Your task to perform on an android device: turn on showing notifications on the lock screen Image 0: 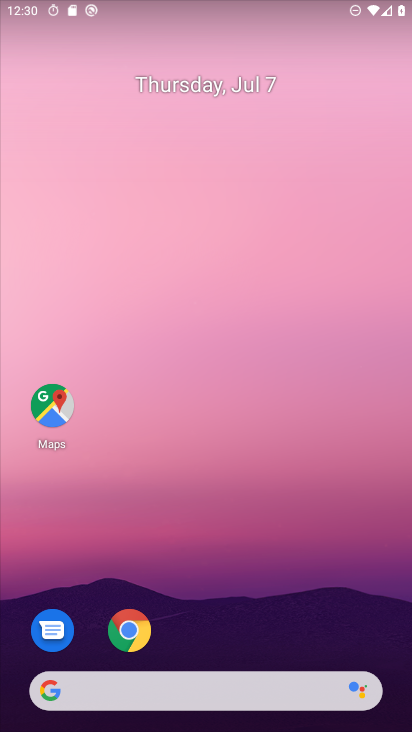
Step 0: drag from (218, 618) to (215, 199)
Your task to perform on an android device: turn on showing notifications on the lock screen Image 1: 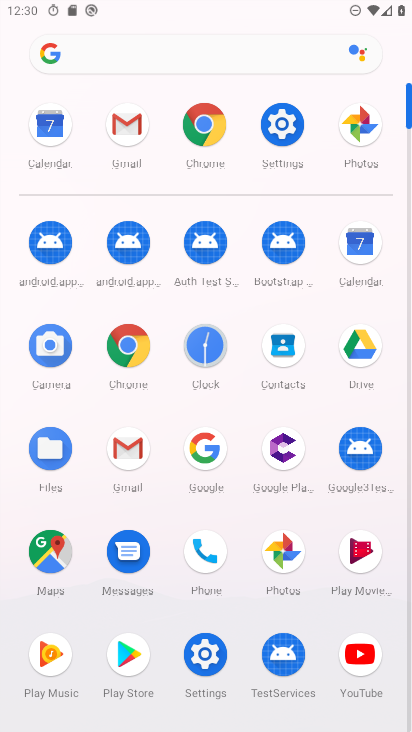
Step 1: click (216, 665)
Your task to perform on an android device: turn on showing notifications on the lock screen Image 2: 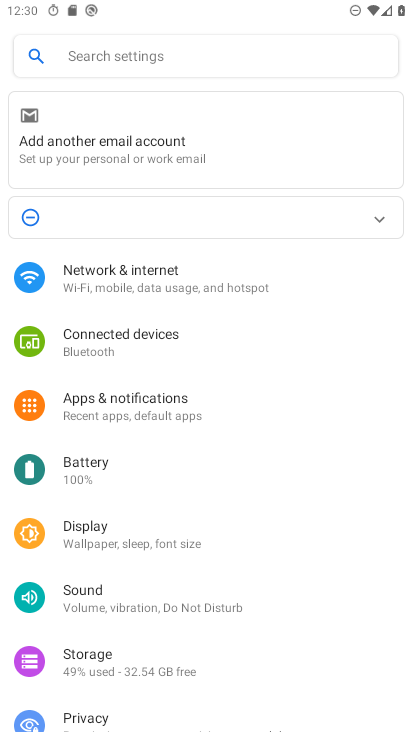
Step 2: click (183, 413)
Your task to perform on an android device: turn on showing notifications on the lock screen Image 3: 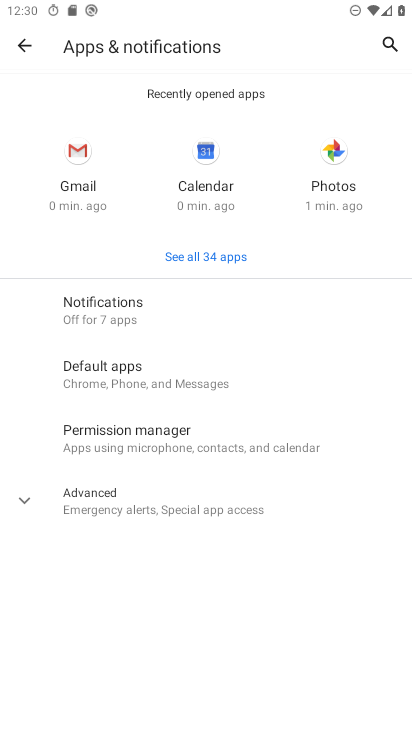
Step 3: click (141, 318)
Your task to perform on an android device: turn on showing notifications on the lock screen Image 4: 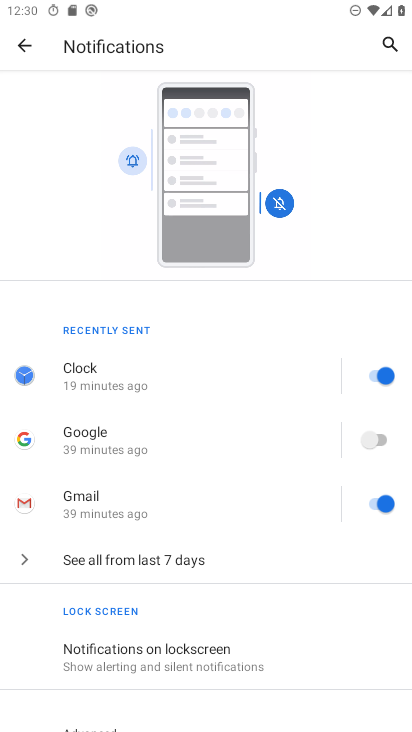
Step 4: drag from (214, 610) to (213, 419)
Your task to perform on an android device: turn on showing notifications on the lock screen Image 5: 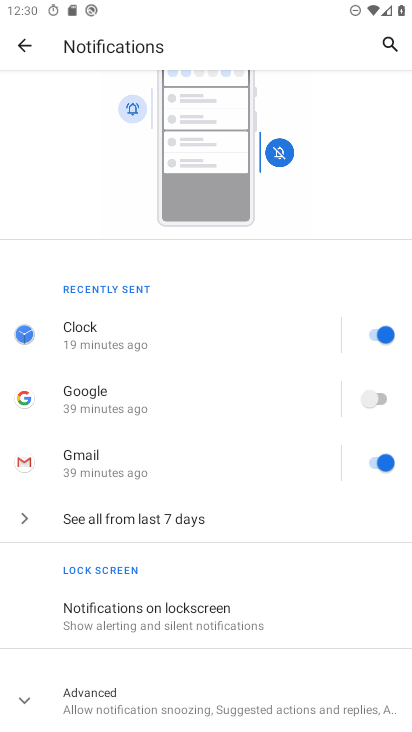
Step 5: click (168, 621)
Your task to perform on an android device: turn on showing notifications on the lock screen Image 6: 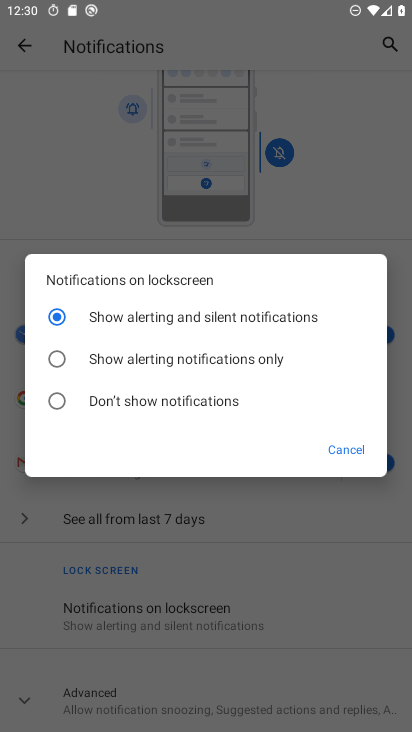
Step 6: task complete